Your task to perform on an android device: What's on my calendar today? Image 0: 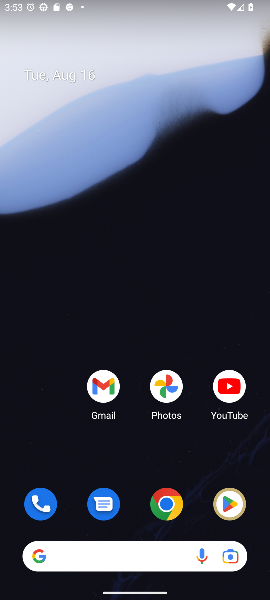
Step 0: drag from (135, 482) to (133, 71)
Your task to perform on an android device: What's on my calendar today? Image 1: 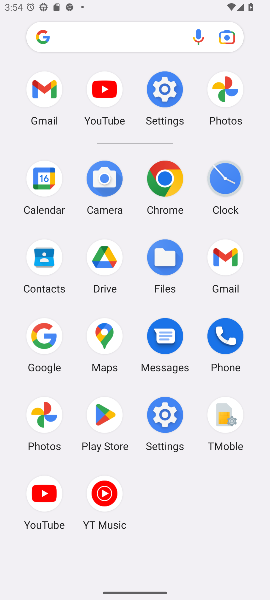
Step 1: click (36, 177)
Your task to perform on an android device: What's on my calendar today? Image 2: 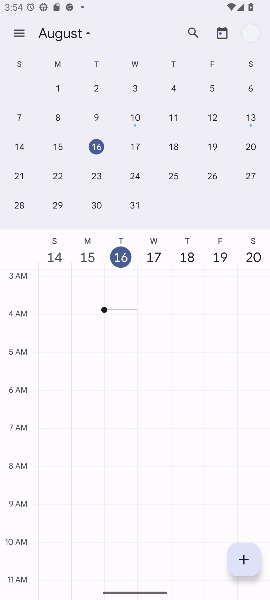
Step 2: click (96, 146)
Your task to perform on an android device: What's on my calendar today? Image 3: 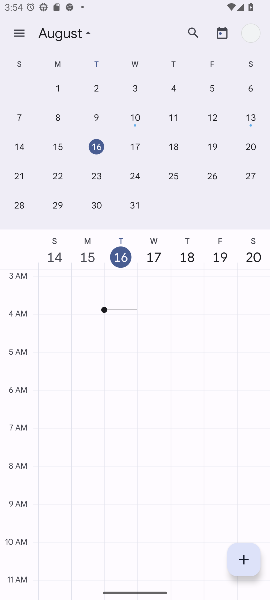
Step 3: click (118, 247)
Your task to perform on an android device: What's on my calendar today? Image 4: 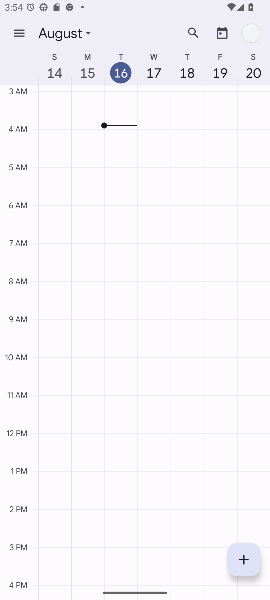
Step 4: click (119, 77)
Your task to perform on an android device: What's on my calendar today? Image 5: 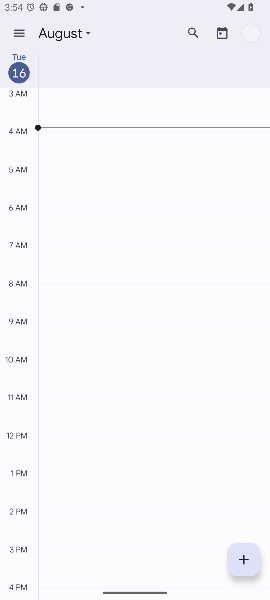
Step 5: task complete